Your task to perform on an android device: Go to Android settings Image 0: 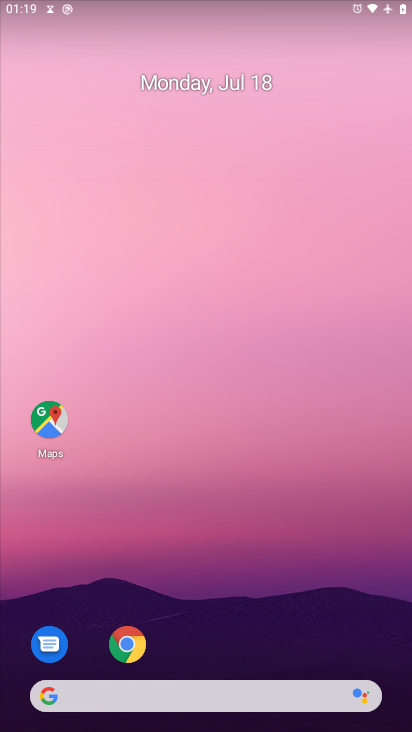
Step 0: drag from (255, 604) to (158, 5)
Your task to perform on an android device: Go to Android settings Image 1: 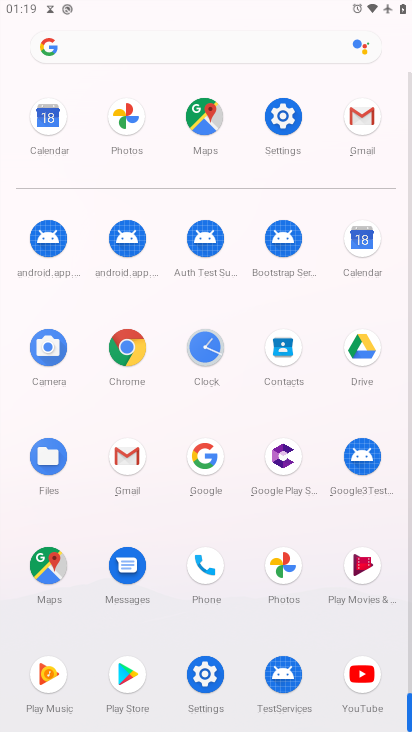
Step 1: click (293, 133)
Your task to perform on an android device: Go to Android settings Image 2: 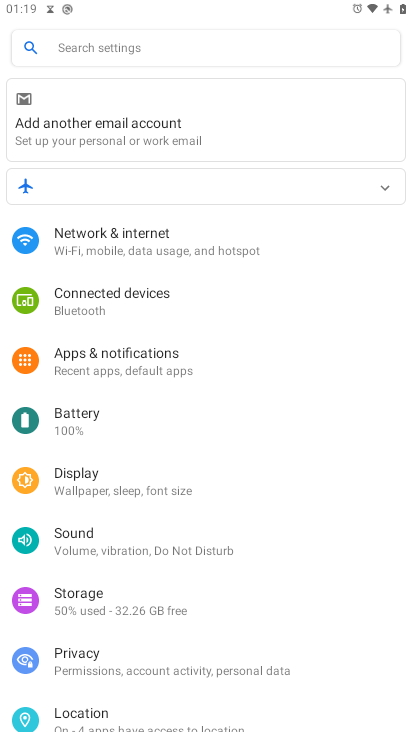
Step 2: task complete